Your task to perform on an android device: toggle javascript in the chrome app Image 0: 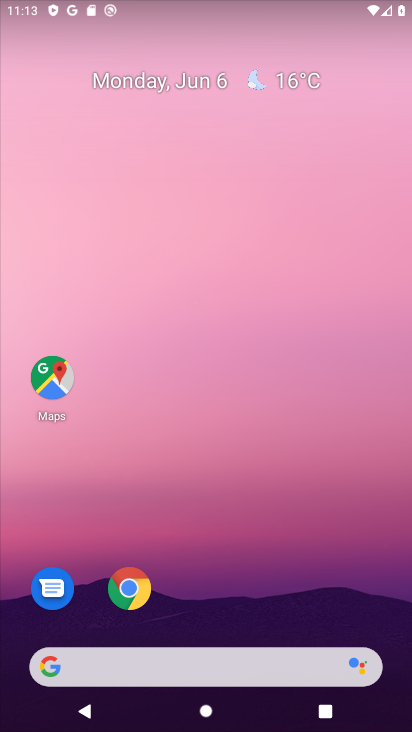
Step 0: click (129, 585)
Your task to perform on an android device: toggle javascript in the chrome app Image 1: 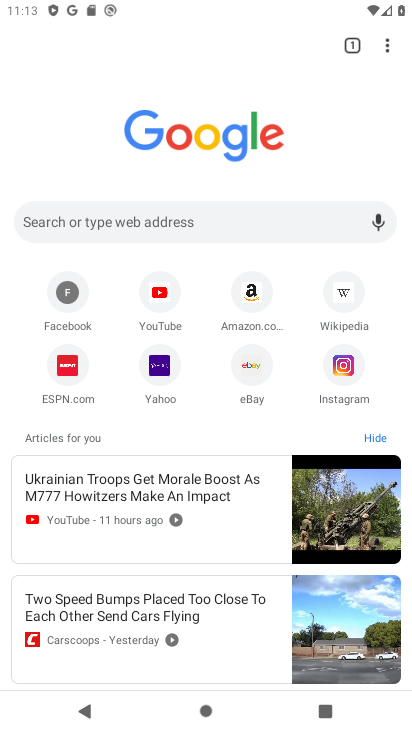
Step 1: click (381, 42)
Your task to perform on an android device: toggle javascript in the chrome app Image 2: 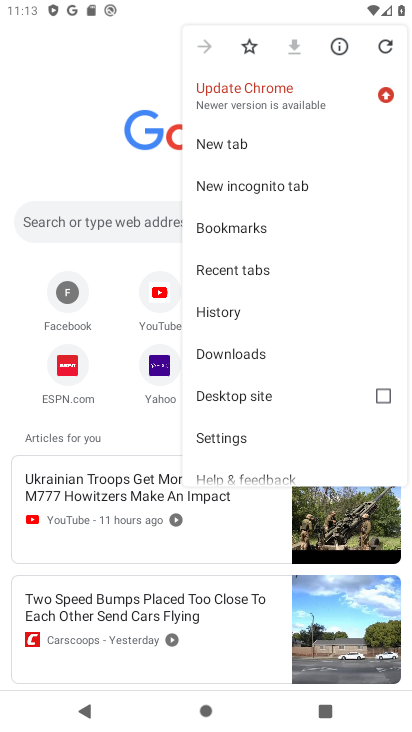
Step 2: click (249, 433)
Your task to perform on an android device: toggle javascript in the chrome app Image 3: 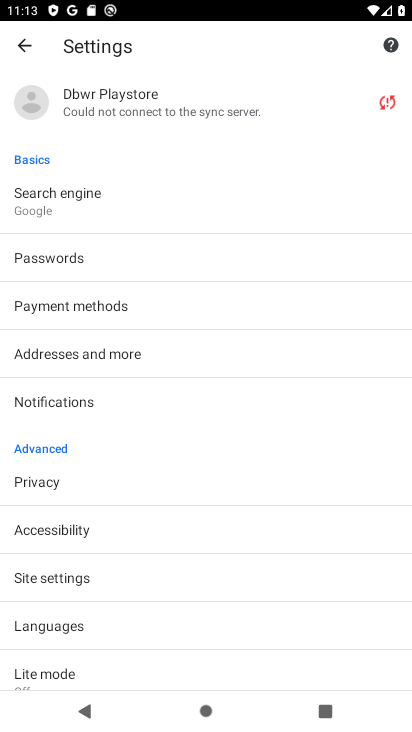
Step 3: click (145, 581)
Your task to perform on an android device: toggle javascript in the chrome app Image 4: 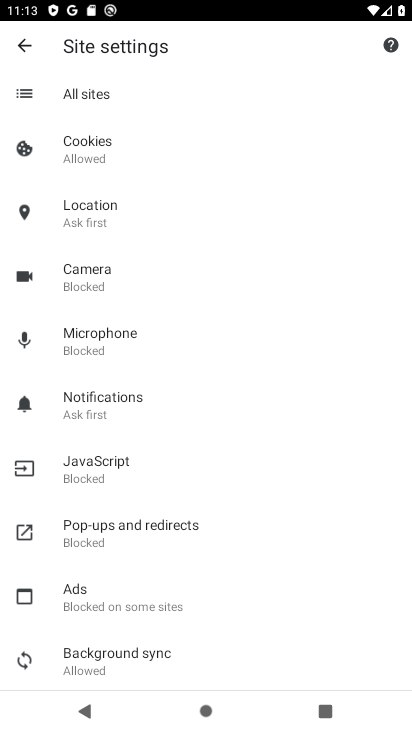
Step 4: click (89, 481)
Your task to perform on an android device: toggle javascript in the chrome app Image 5: 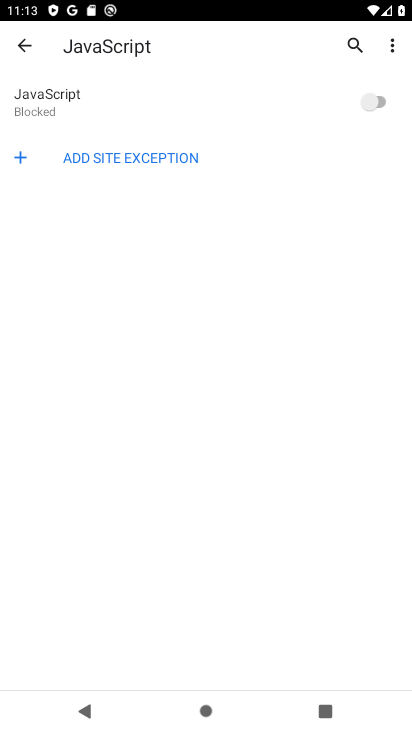
Step 5: click (378, 97)
Your task to perform on an android device: toggle javascript in the chrome app Image 6: 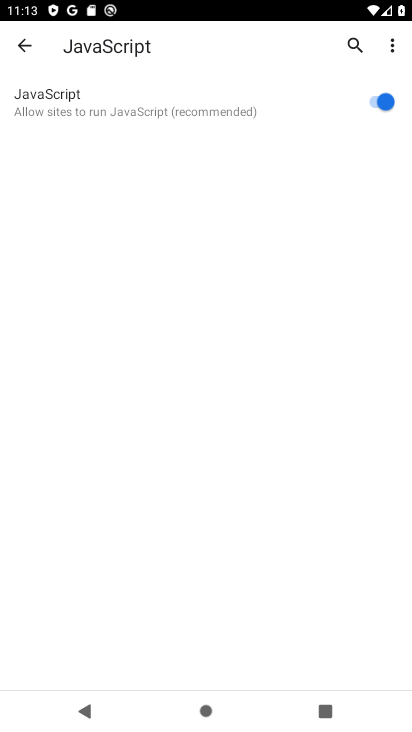
Step 6: task complete